Your task to perform on an android device: check the backup settings in the google photos Image 0: 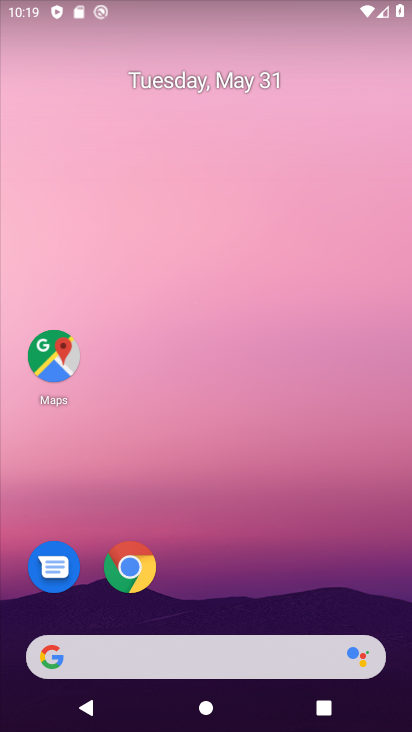
Step 0: drag from (202, 600) to (195, 86)
Your task to perform on an android device: check the backup settings in the google photos Image 1: 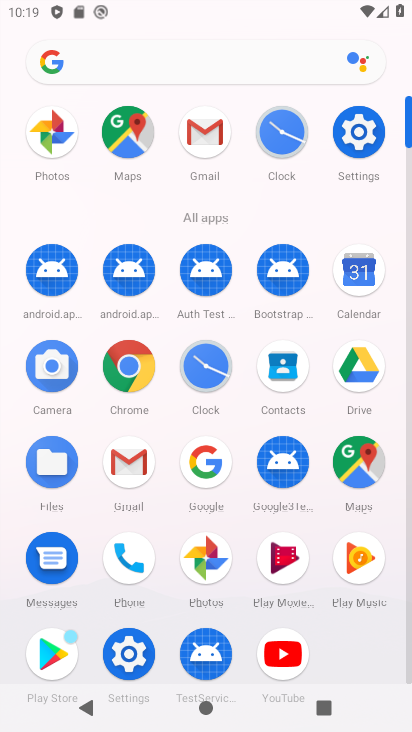
Step 1: click (208, 564)
Your task to perform on an android device: check the backup settings in the google photos Image 2: 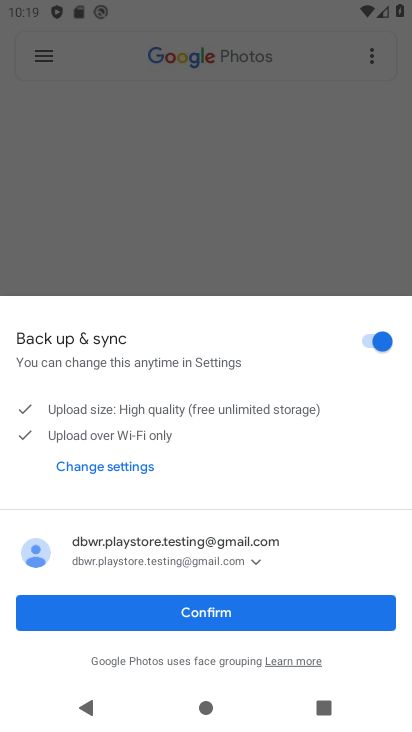
Step 2: click (217, 612)
Your task to perform on an android device: check the backup settings in the google photos Image 3: 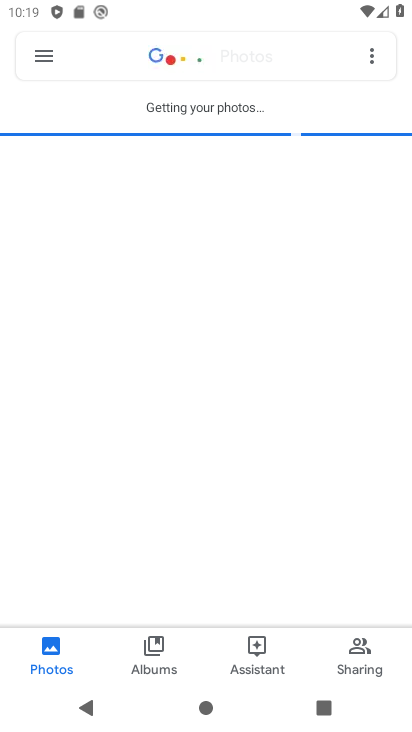
Step 3: click (38, 55)
Your task to perform on an android device: check the backup settings in the google photos Image 4: 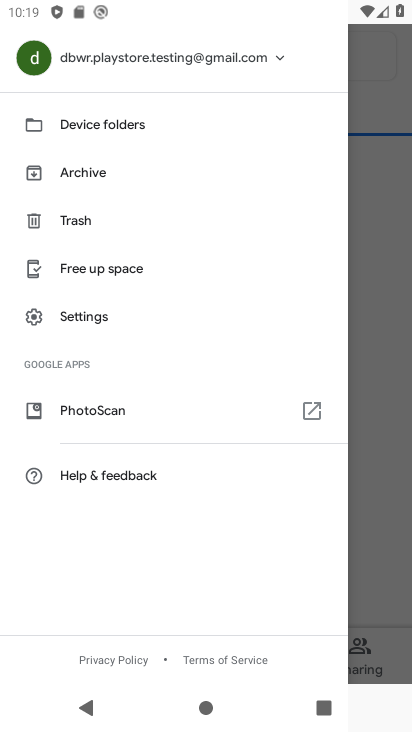
Step 4: click (101, 312)
Your task to perform on an android device: check the backup settings in the google photos Image 5: 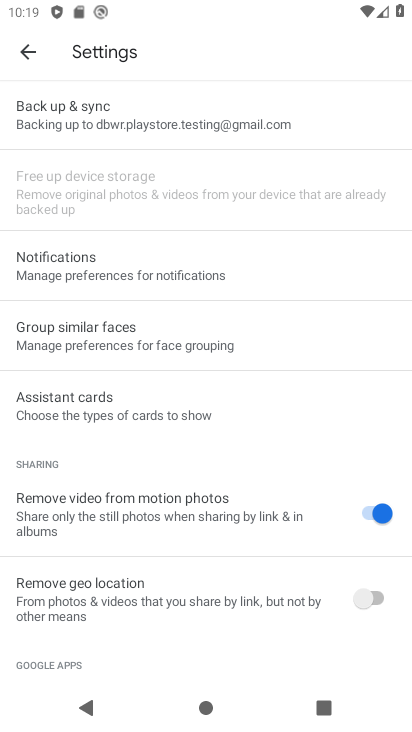
Step 5: click (127, 119)
Your task to perform on an android device: check the backup settings in the google photos Image 6: 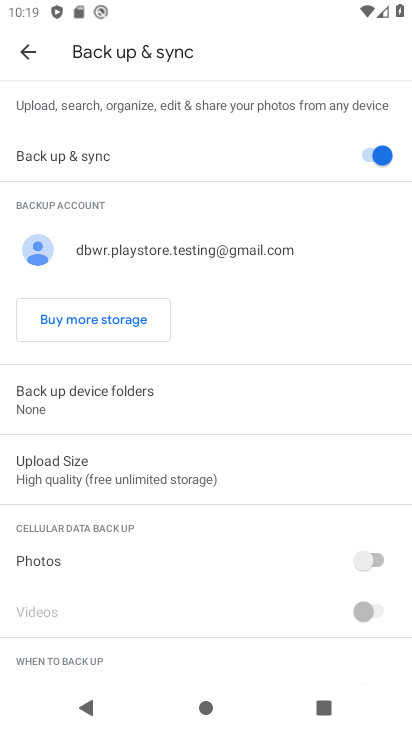
Step 6: task complete